Your task to perform on an android device: find photos in the google photos app Image 0: 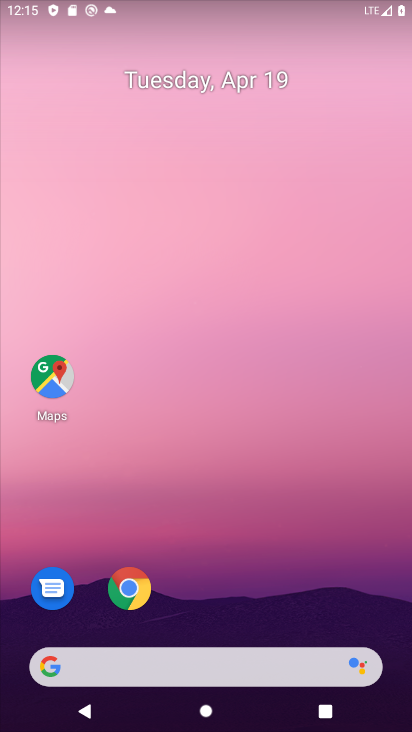
Step 0: drag from (386, 578) to (395, 520)
Your task to perform on an android device: find photos in the google photos app Image 1: 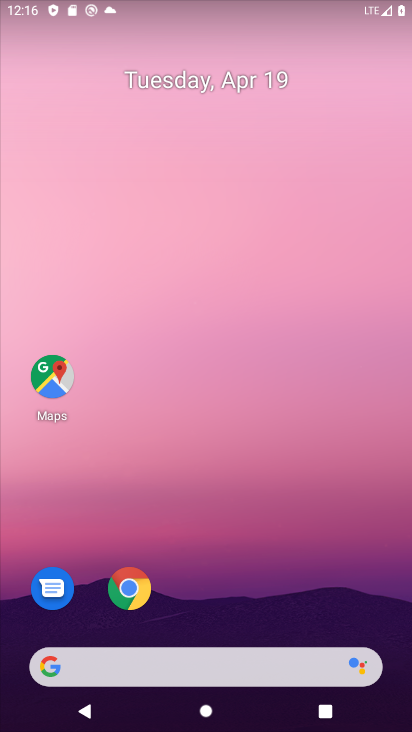
Step 1: click (288, 593)
Your task to perform on an android device: find photos in the google photos app Image 2: 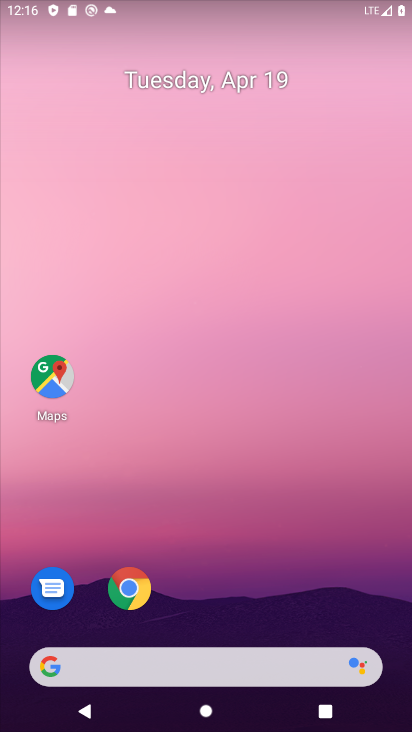
Step 2: drag from (323, 608) to (360, 17)
Your task to perform on an android device: find photos in the google photos app Image 3: 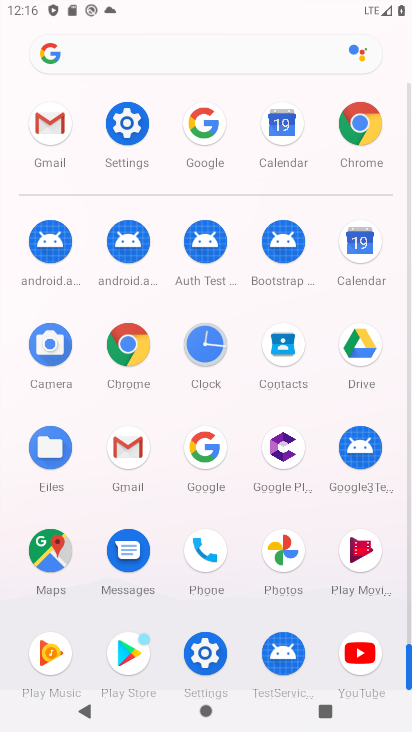
Step 3: click (285, 553)
Your task to perform on an android device: find photos in the google photos app Image 4: 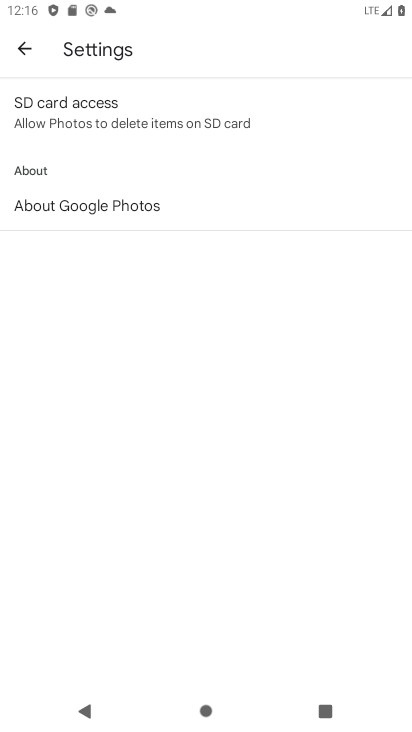
Step 4: click (23, 47)
Your task to perform on an android device: find photos in the google photos app Image 5: 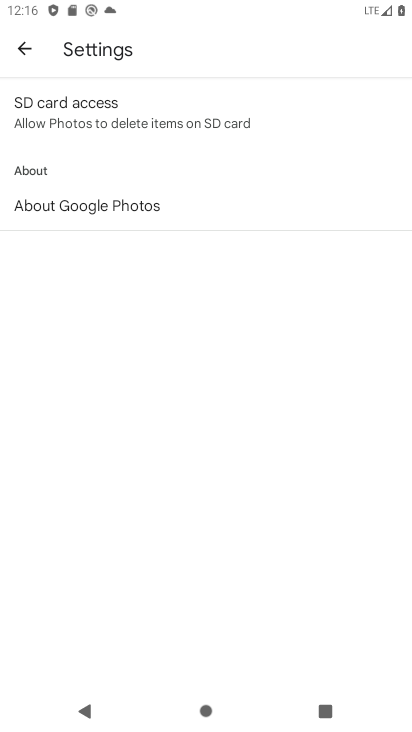
Step 5: click (17, 44)
Your task to perform on an android device: find photos in the google photos app Image 6: 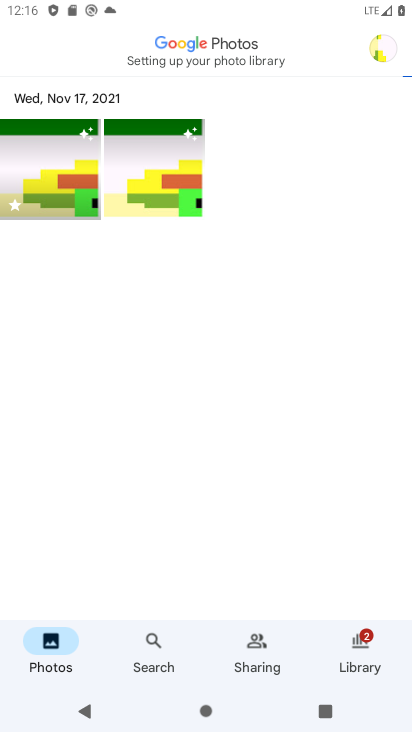
Step 6: click (51, 169)
Your task to perform on an android device: find photos in the google photos app Image 7: 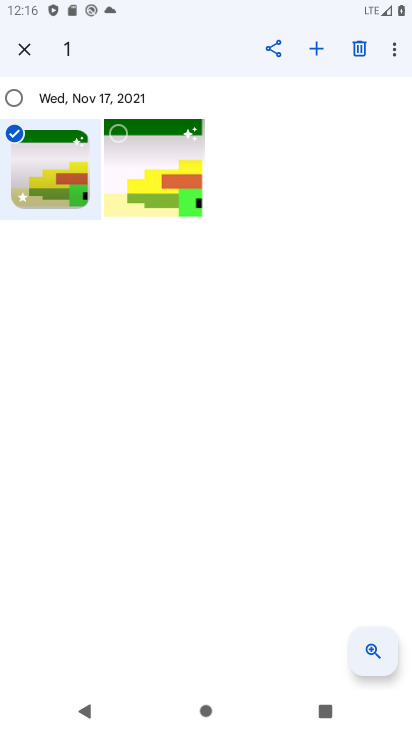
Step 7: click (61, 181)
Your task to perform on an android device: find photos in the google photos app Image 8: 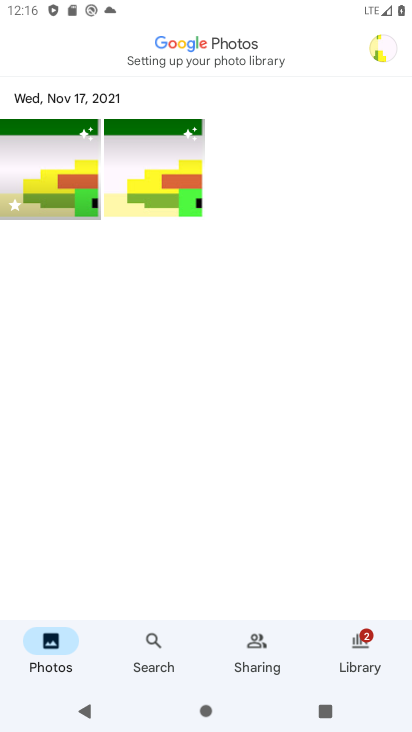
Step 8: click (162, 170)
Your task to perform on an android device: find photos in the google photos app Image 9: 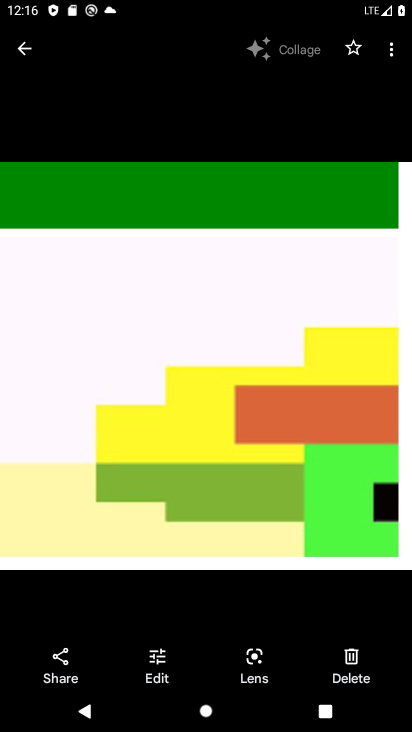
Step 9: task complete